Your task to perform on an android device: turn off priority inbox in the gmail app Image 0: 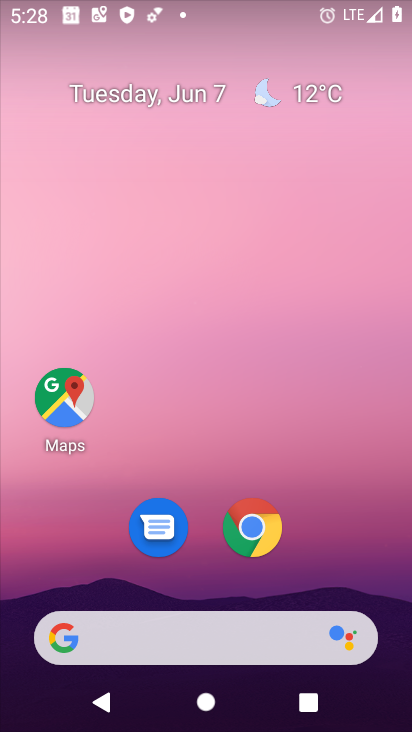
Step 0: drag from (324, 564) to (251, 76)
Your task to perform on an android device: turn off priority inbox in the gmail app Image 1: 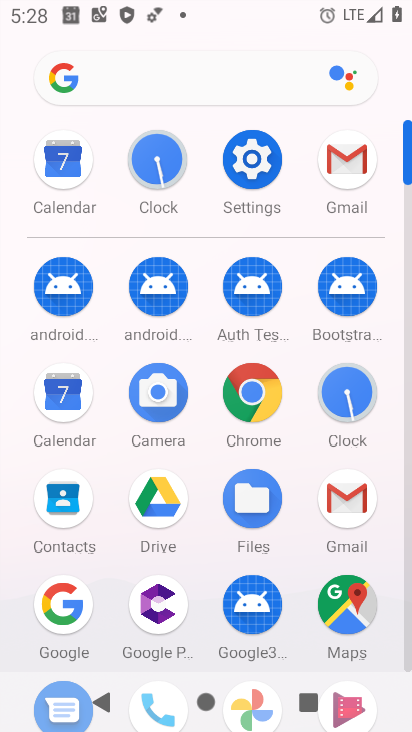
Step 1: click (347, 161)
Your task to perform on an android device: turn off priority inbox in the gmail app Image 2: 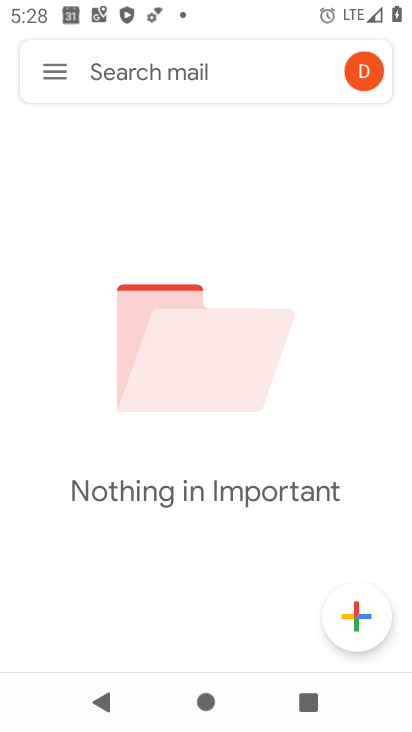
Step 2: click (57, 75)
Your task to perform on an android device: turn off priority inbox in the gmail app Image 3: 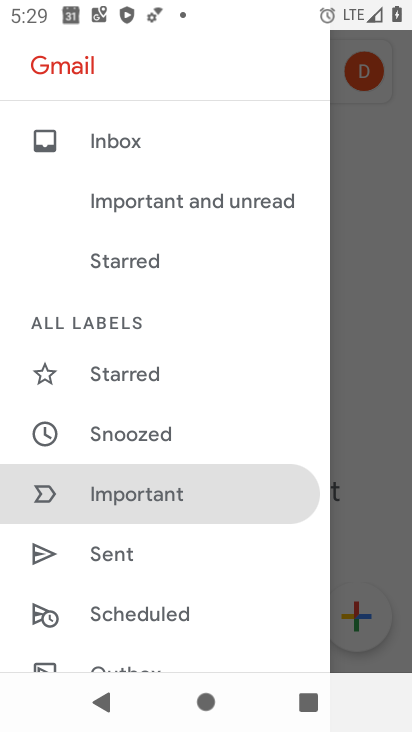
Step 3: drag from (162, 555) to (210, 378)
Your task to perform on an android device: turn off priority inbox in the gmail app Image 4: 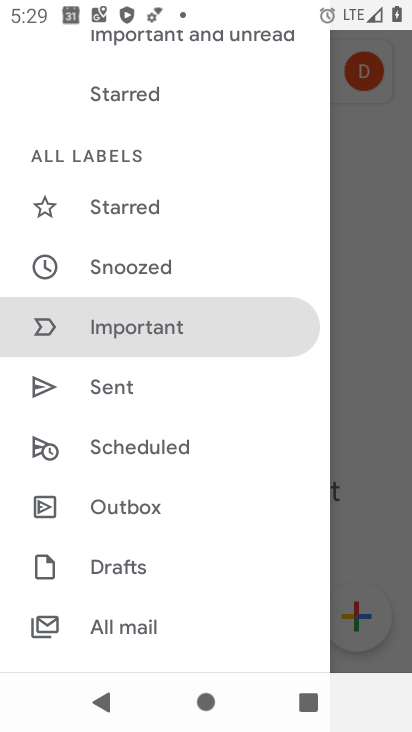
Step 4: drag from (172, 579) to (274, 402)
Your task to perform on an android device: turn off priority inbox in the gmail app Image 5: 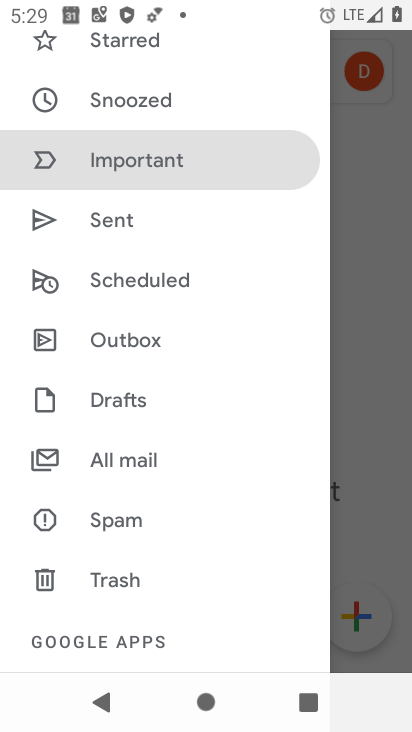
Step 5: drag from (106, 612) to (184, 443)
Your task to perform on an android device: turn off priority inbox in the gmail app Image 6: 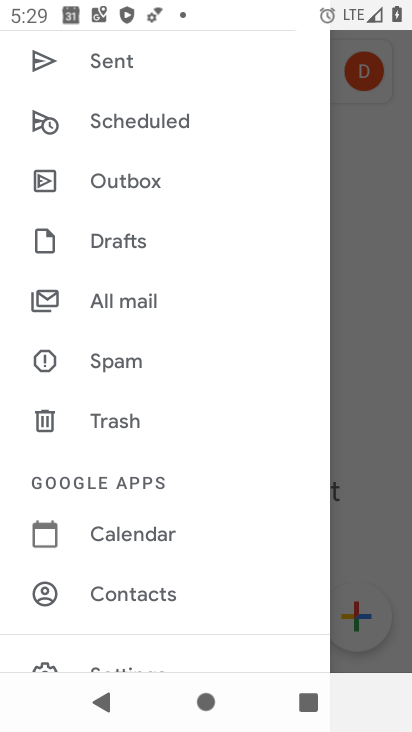
Step 6: drag from (121, 576) to (195, 401)
Your task to perform on an android device: turn off priority inbox in the gmail app Image 7: 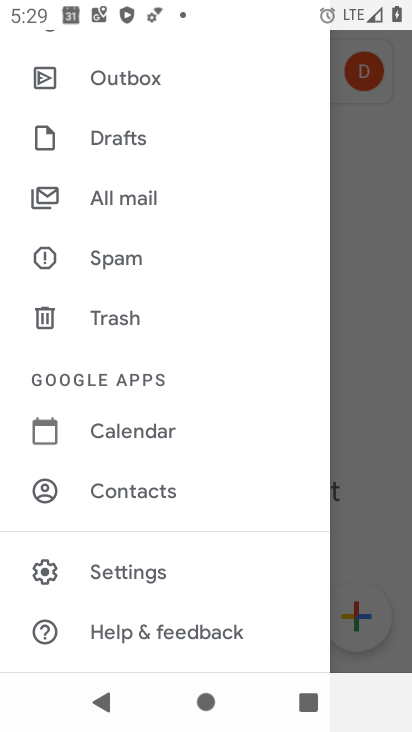
Step 7: click (156, 570)
Your task to perform on an android device: turn off priority inbox in the gmail app Image 8: 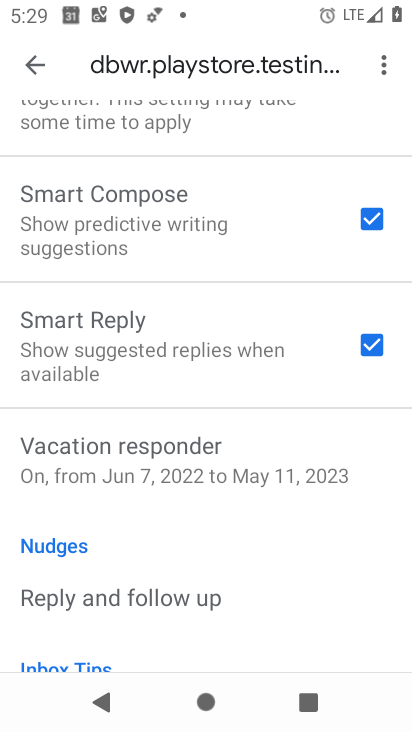
Step 8: task complete